Your task to perform on an android device: Search for pizza restaurants on Maps Image 0: 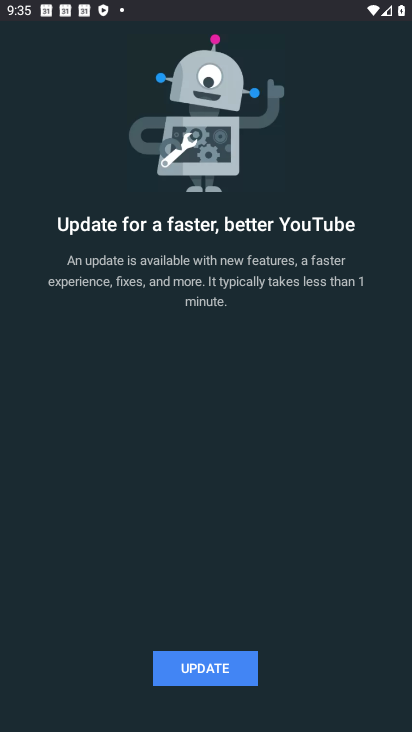
Step 0: press home button
Your task to perform on an android device: Search for pizza restaurants on Maps Image 1: 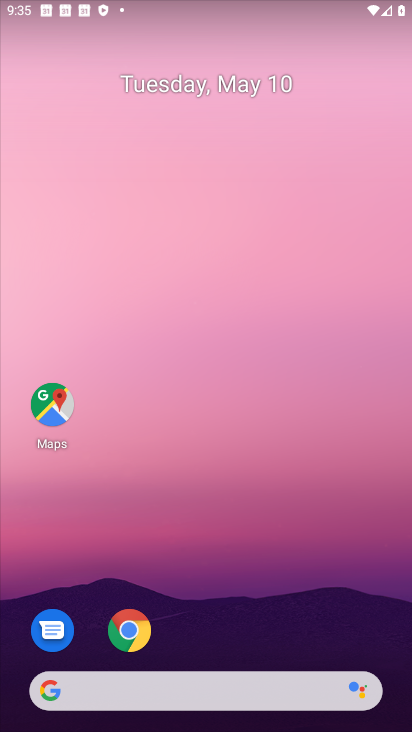
Step 1: click (61, 397)
Your task to perform on an android device: Search for pizza restaurants on Maps Image 2: 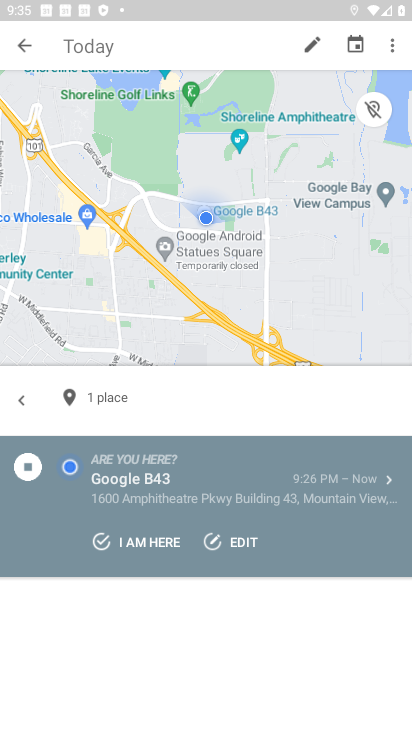
Step 2: click (29, 38)
Your task to perform on an android device: Search for pizza restaurants on Maps Image 3: 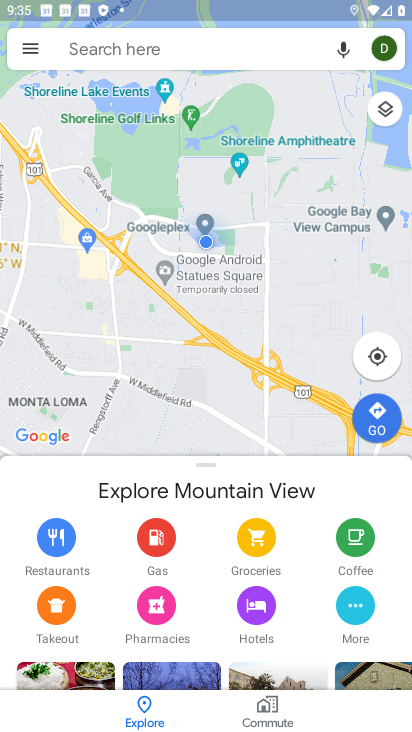
Step 3: click (251, 54)
Your task to perform on an android device: Search for pizza restaurants on Maps Image 4: 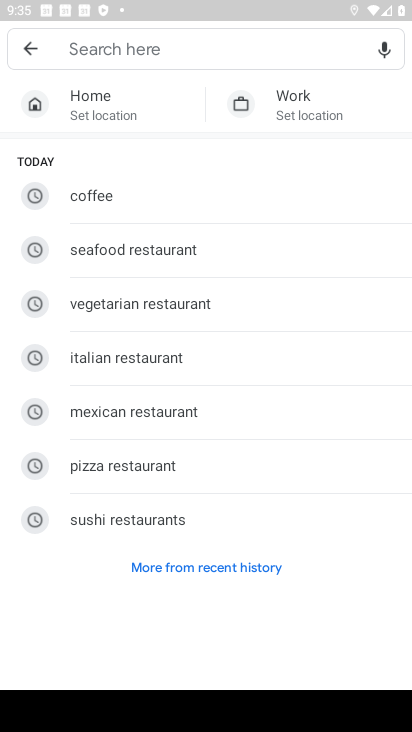
Step 4: click (138, 465)
Your task to perform on an android device: Search for pizza restaurants on Maps Image 5: 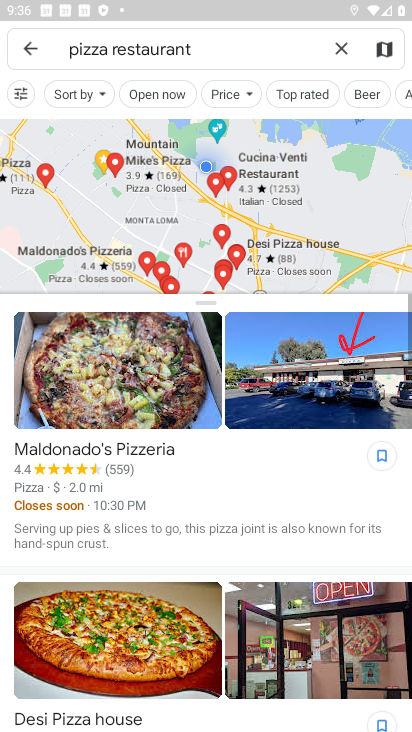
Step 5: task complete